Your task to perform on an android device: Open Google Maps Image 0: 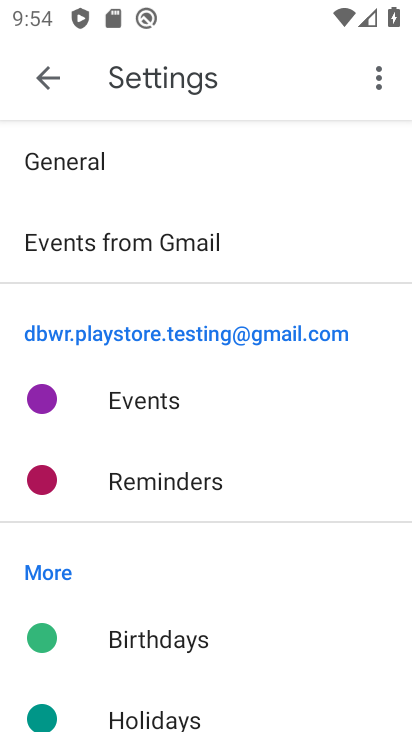
Step 0: press back button
Your task to perform on an android device: Open Google Maps Image 1: 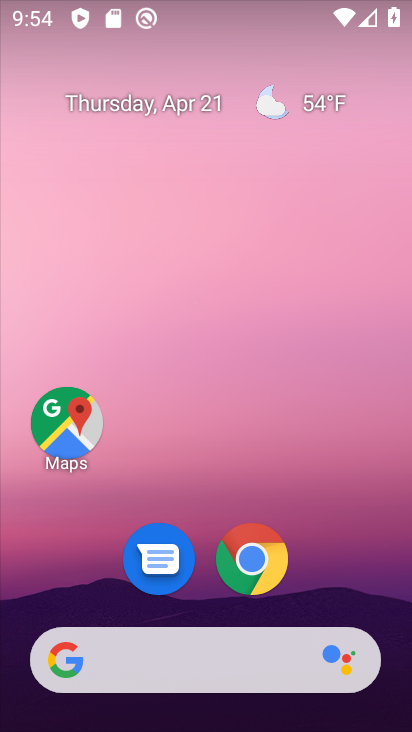
Step 1: click (60, 418)
Your task to perform on an android device: Open Google Maps Image 2: 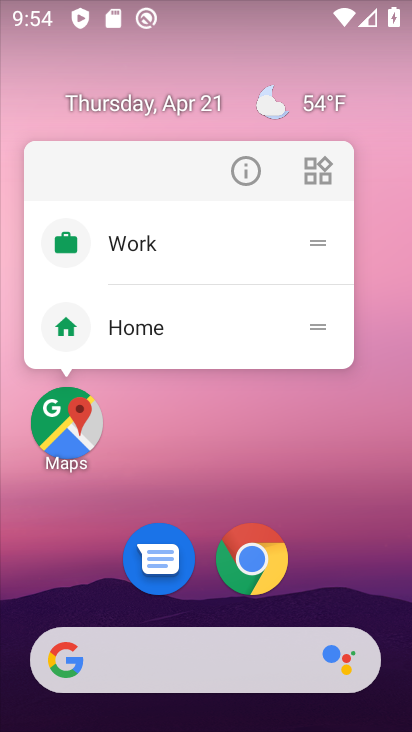
Step 2: click (58, 400)
Your task to perform on an android device: Open Google Maps Image 3: 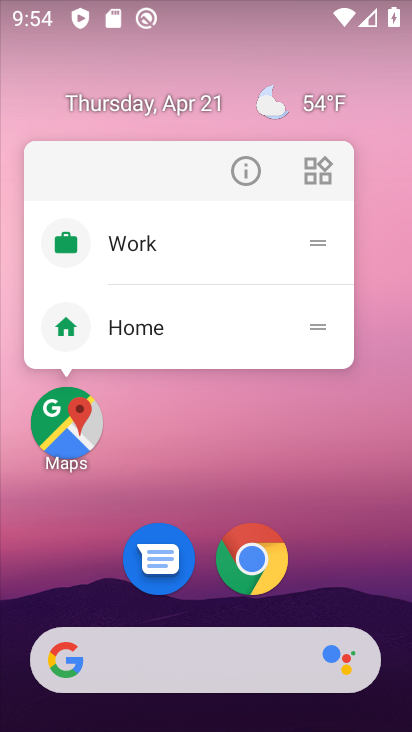
Step 3: click (63, 412)
Your task to perform on an android device: Open Google Maps Image 4: 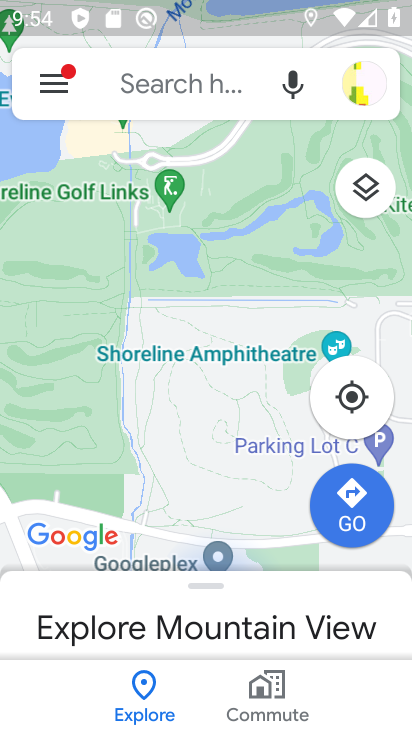
Step 4: task complete